Your task to perform on an android device: delete browsing data in the chrome app Image 0: 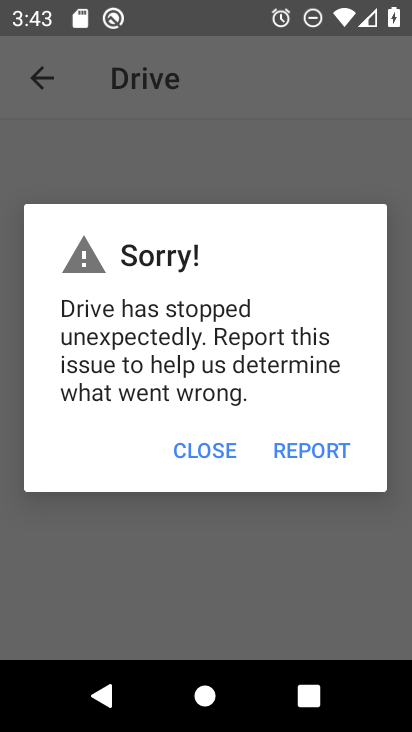
Step 0: press home button
Your task to perform on an android device: delete browsing data in the chrome app Image 1: 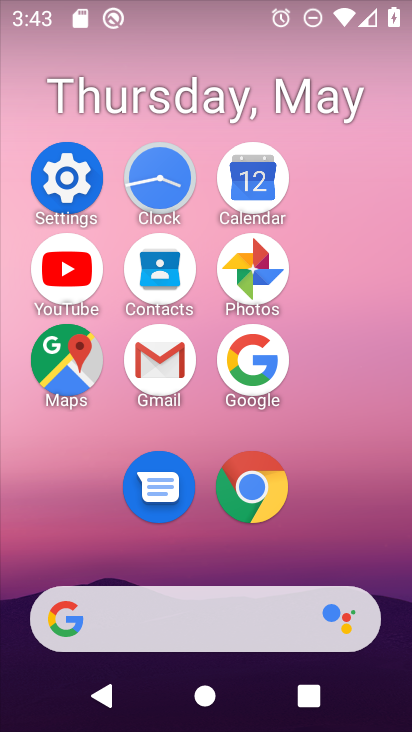
Step 1: click (259, 509)
Your task to perform on an android device: delete browsing data in the chrome app Image 2: 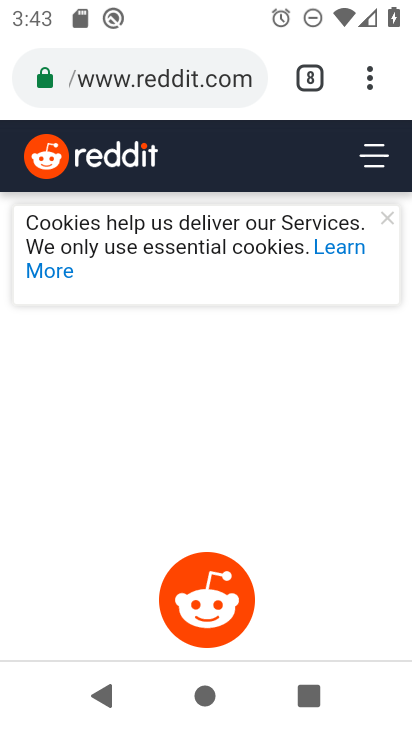
Step 2: click (365, 86)
Your task to perform on an android device: delete browsing data in the chrome app Image 3: 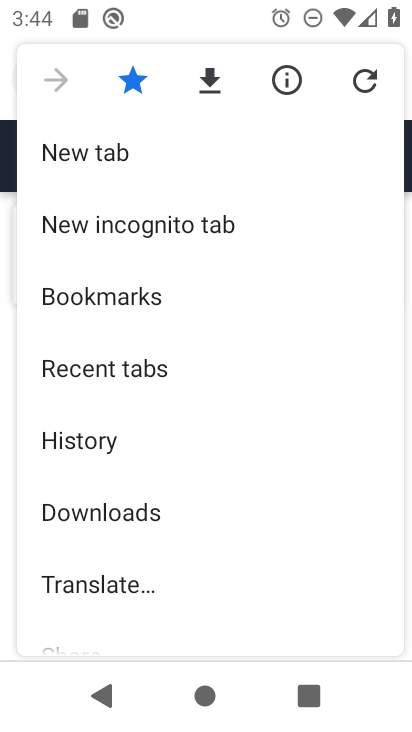
Step 3: drag from (227, 532) to (273, 156)
Your task to perform on an android device: delete browsing data in the chrome app Image 4: 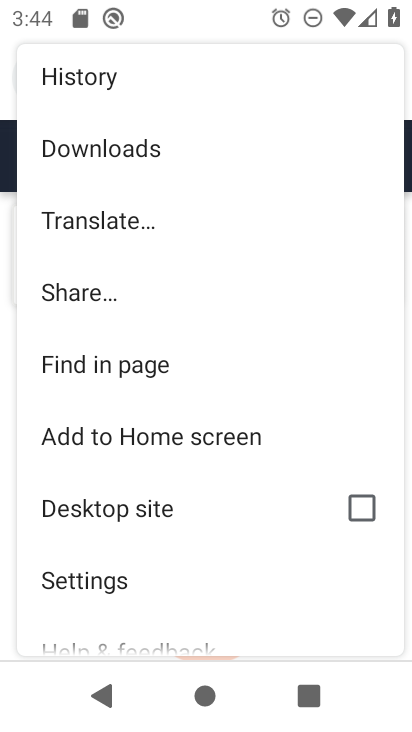
Step 4: drag from (202, 575) to (220, 257)
Your task to perform on an android device: delete browsing data in the chrome app Image 5: 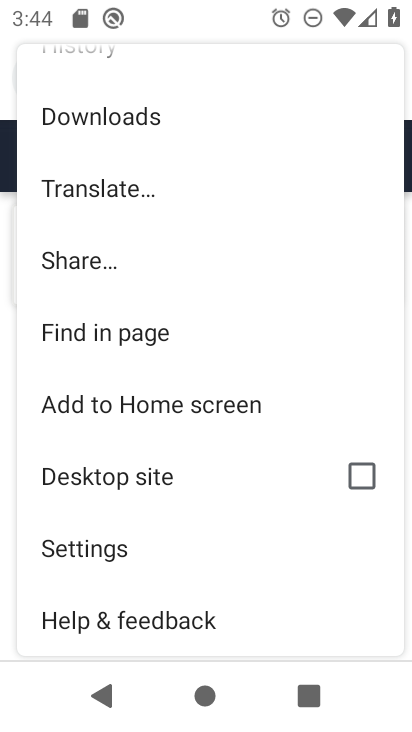
Step 5: click (188, 538)
Your task to perform on an android device: delete browsing data in the chrome app Image 6: 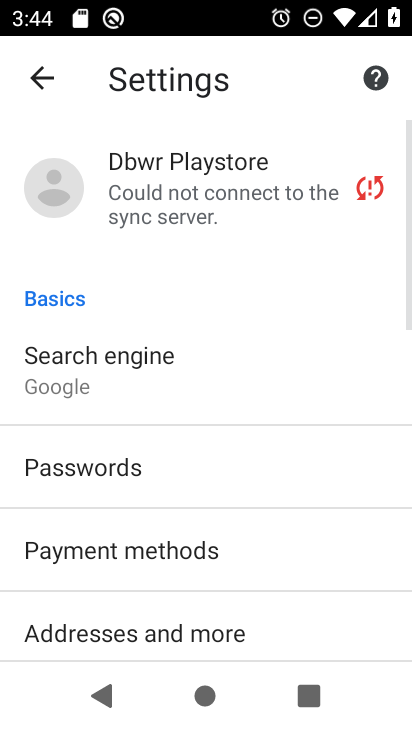
Step 6: drag from (188, 538) to (187, 148)
Your task to perform on an android device: delete browsing data in the chrome app Image 7: 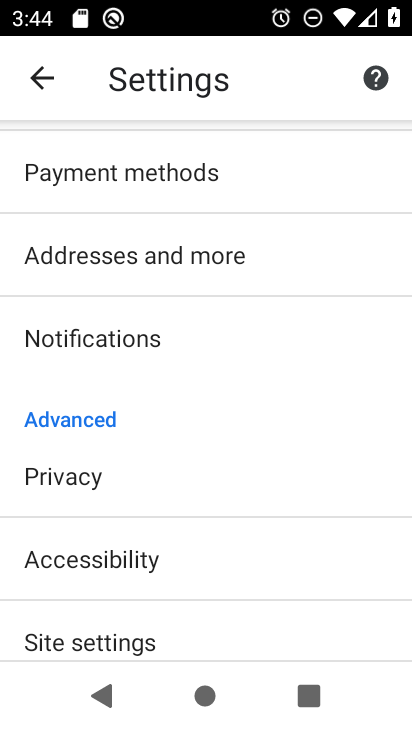
Step 7: click (125, 488)
Your task to perform on an android device: delete browsing data in the chrome app Image 8: 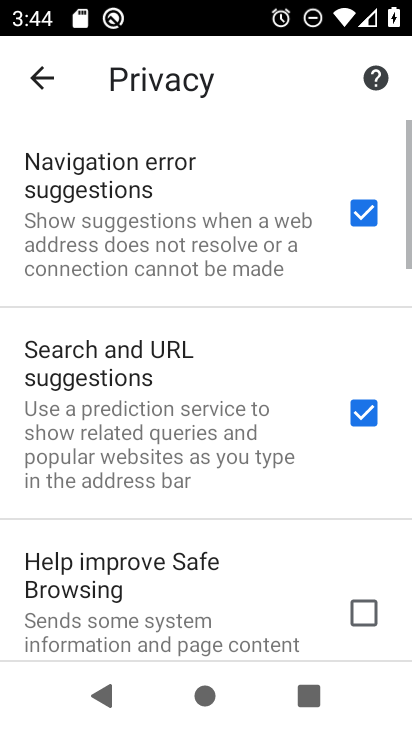
Step 8: drag from (242, 602) to (284, 190)
Your task to perform on an android device: delete browsing data in the chrome app Image 9: 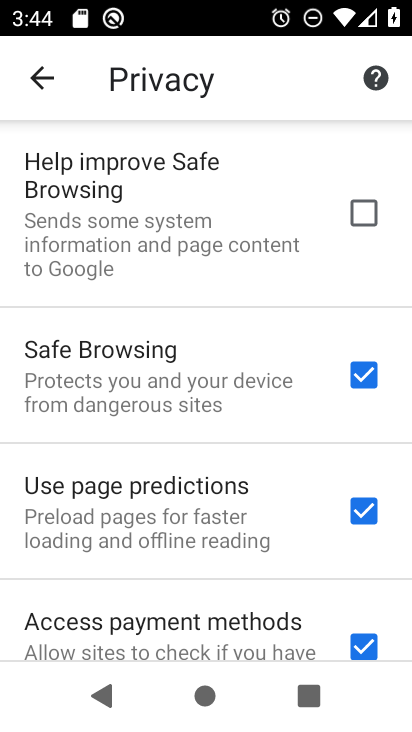
Step 9: drag from (225, 606) to (210, 215)
Your task to perform on an android device: delete browsing data in the chrome app Image 10: 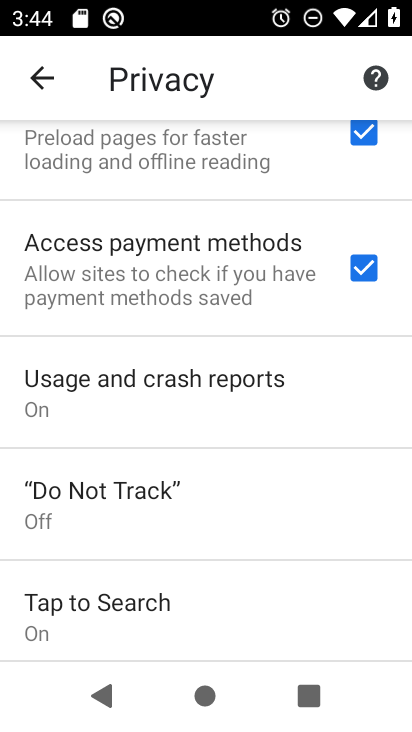
Step 10: drag from (220, 568) to (222, 243)
Your task to perform on an android device: delete browsing data in the chrome app Image 11: 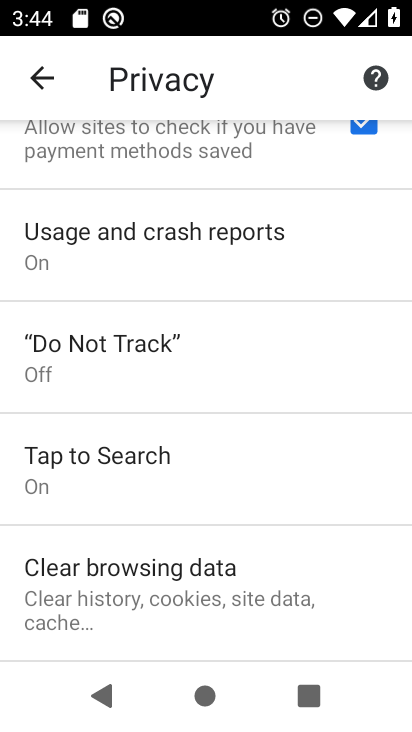
Step 11: click (204, 558)
Your task to perform on an android device: delete browsing data in the chrome app Image 12: 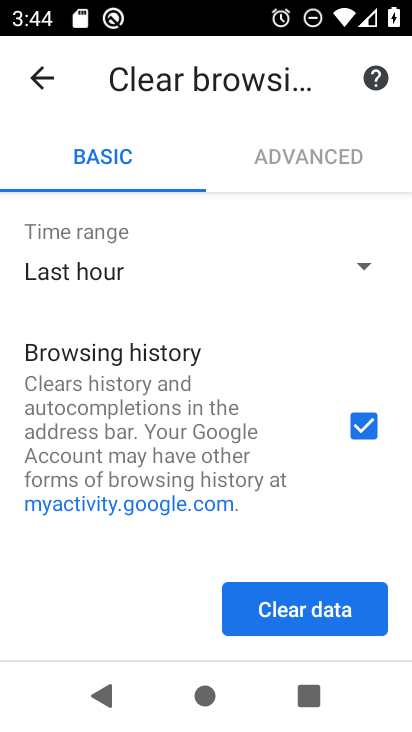
Step 12: drag from (245, 514) to (242, 207)
Your task to perform on an android device: delete browsing data in the chrome app Image 13: 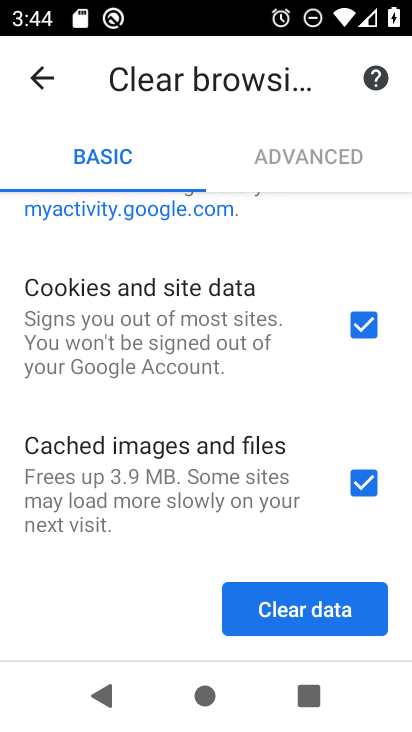
Step 13: click (292, 618)
Your task to perform on an android device: delete browsing data in the chrome app Image 14: 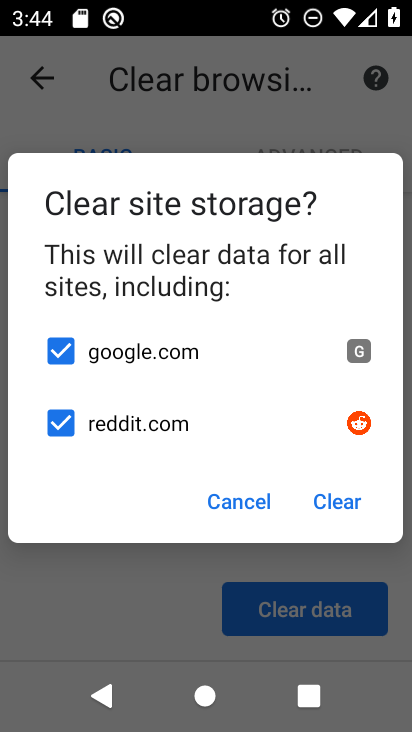
Step 14: click (341, 493)
Your task to perform on an android device: delete browsing data in the chrome app Image 15: 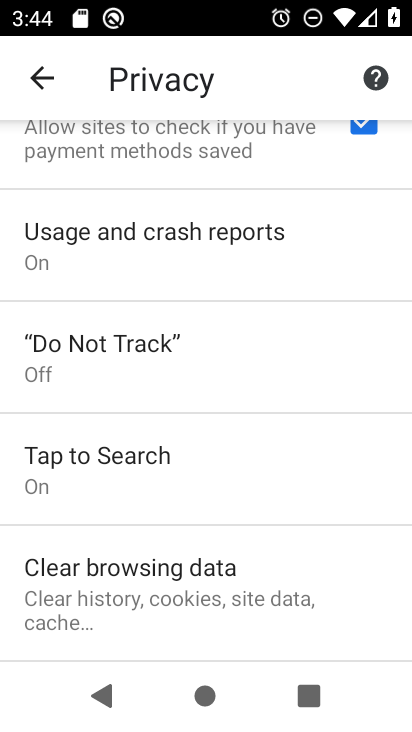
Step 15: task complete